Your task to perform on an android device: Go to location settings Image 0: 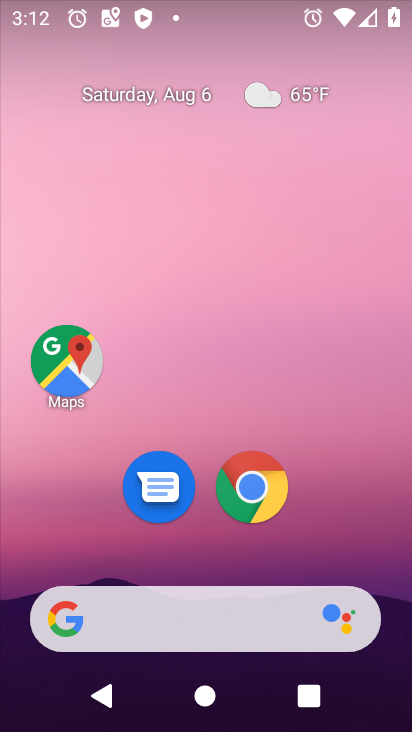
Step 0: drag from (225, 553) to (185, 73)
Your task to perform on an android device: Go to location settings Image 1: 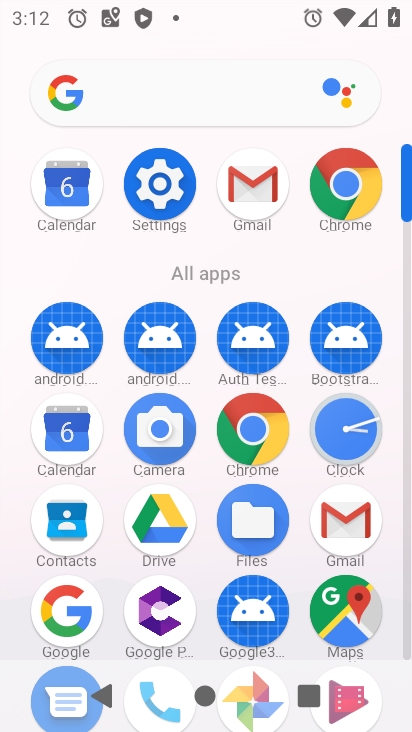
Step 1: click (176, 212)
Your task to perform on an android device: Go to location settings Image 2: 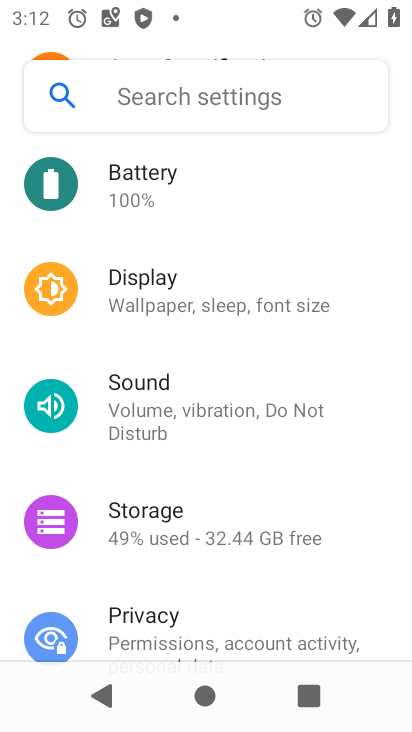
Step 2: drag from (193, 497) to (190, 233)
Your task to perform on an android device: Go to location settings Image 3: 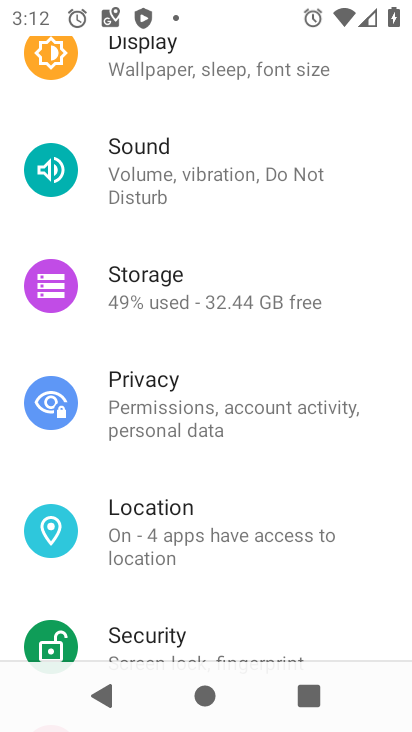
Step 3: click (166, 522)
Your task to perform on an android device: Go to location settings Image 4: 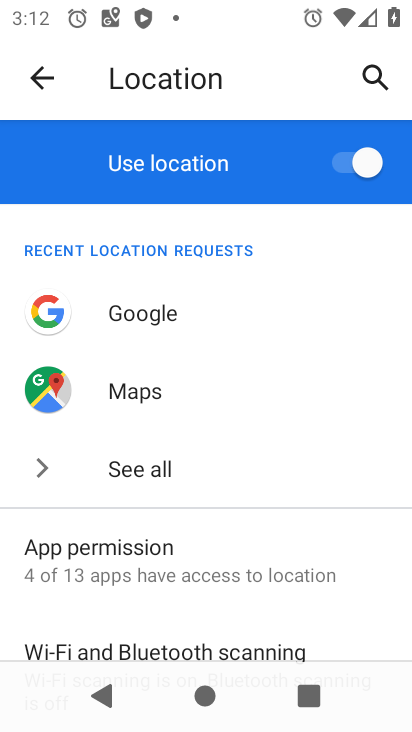
Step 4: task complete